Your task to perform on an android device: turn off improve location accuracy Image 0: 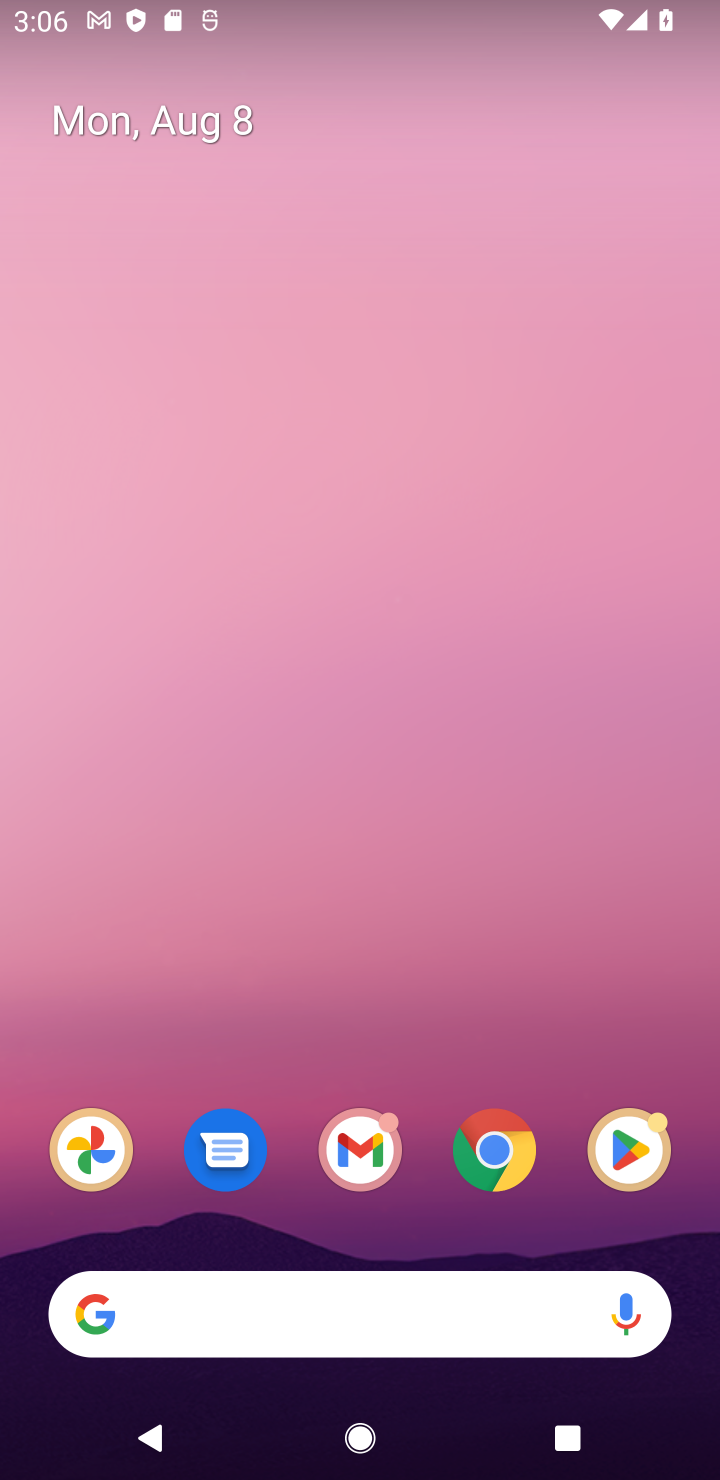
Step 0: drag from (416, 780) to (360, 457)
Your task to perform on an android device: turn off improve location accuracy Image 1: 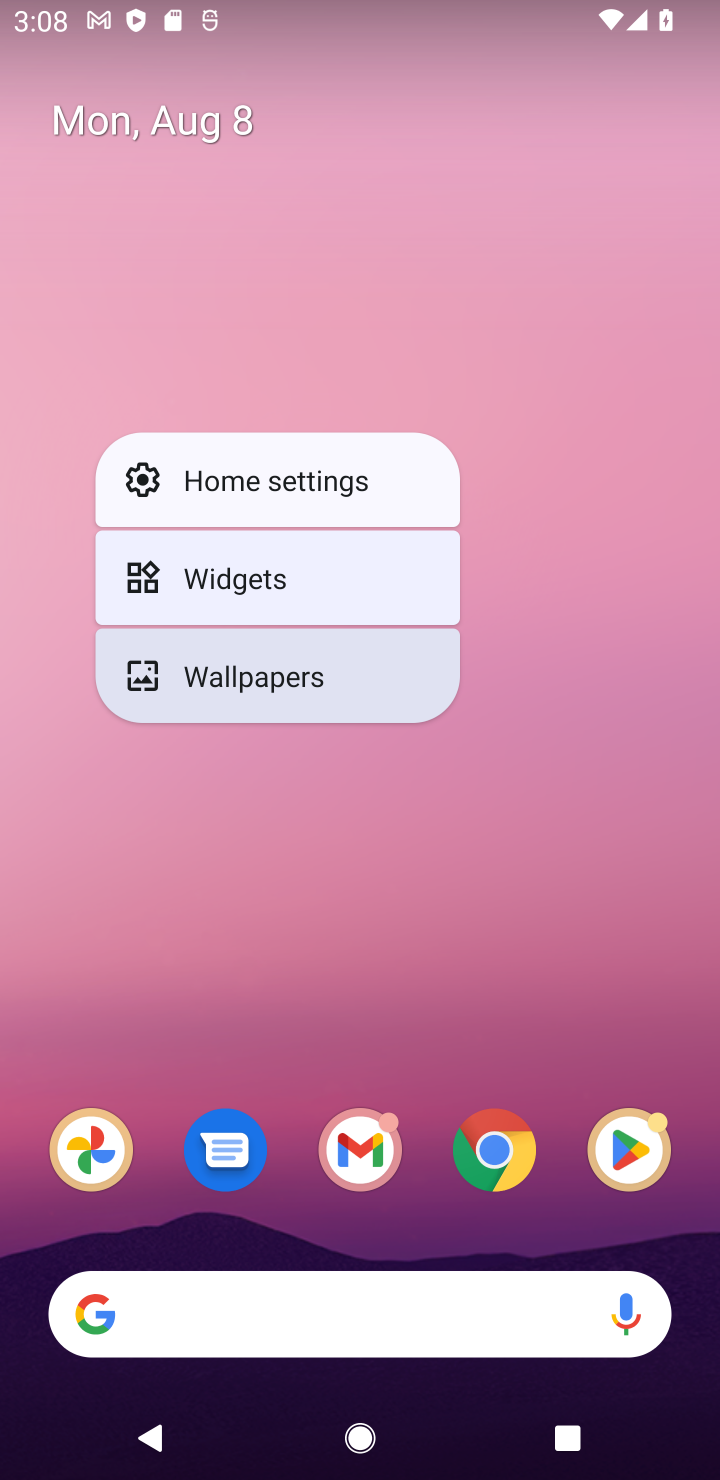
Step 1: task complete